Your task to perform on an android device: make emails show in primary in the gmail app Image 0: 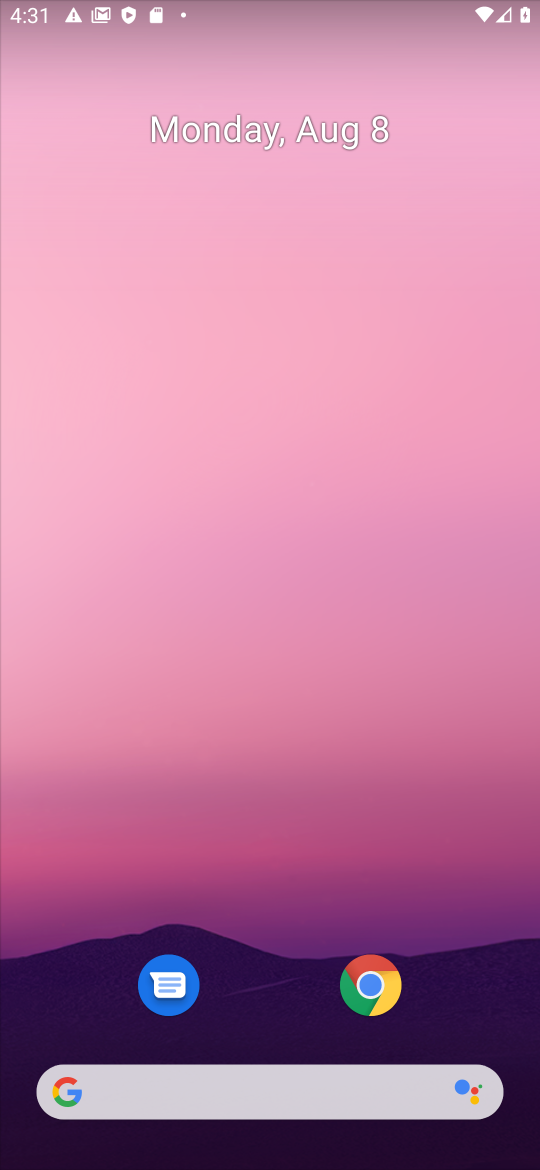
Step 0: drag from (284, 867) to (415, 39)
Your task to perform on an android device: make emails show in primary in the gmail app Image 1: 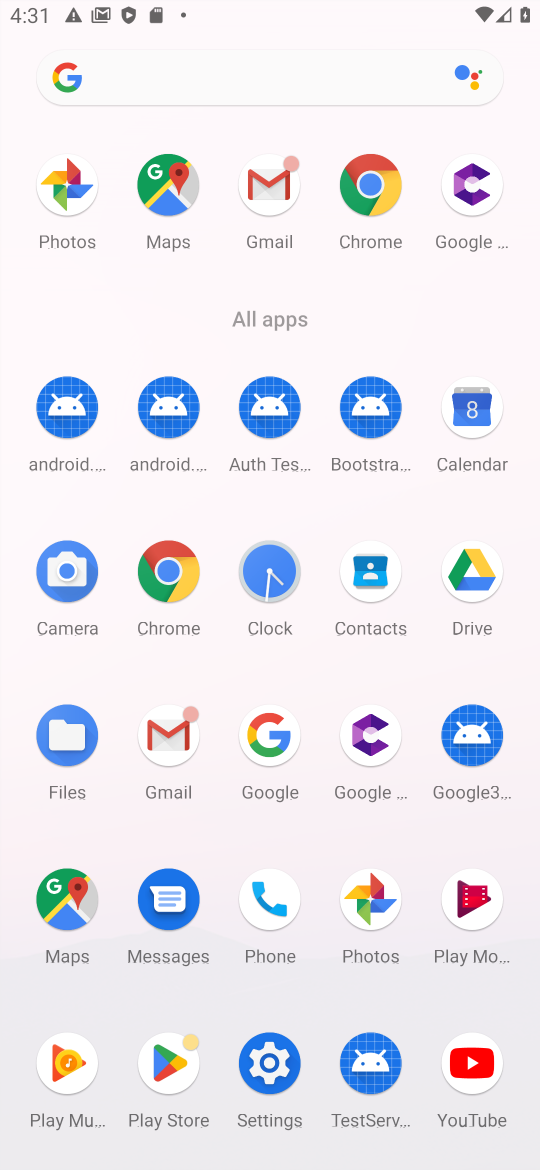
Step 1: click (170, 726)
Your task to perform on an android device: make emails show in primary in the gmail app Image 2: 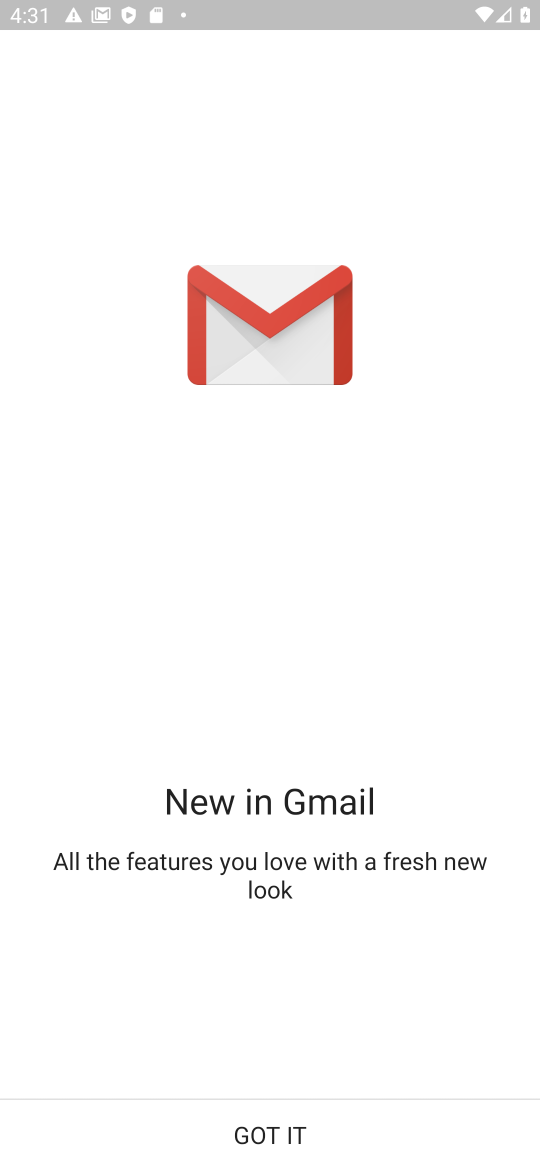
Step 2: click (286, 1126)
Your task to perform on an android device: make emails show in primary in the gmail app Image 3: 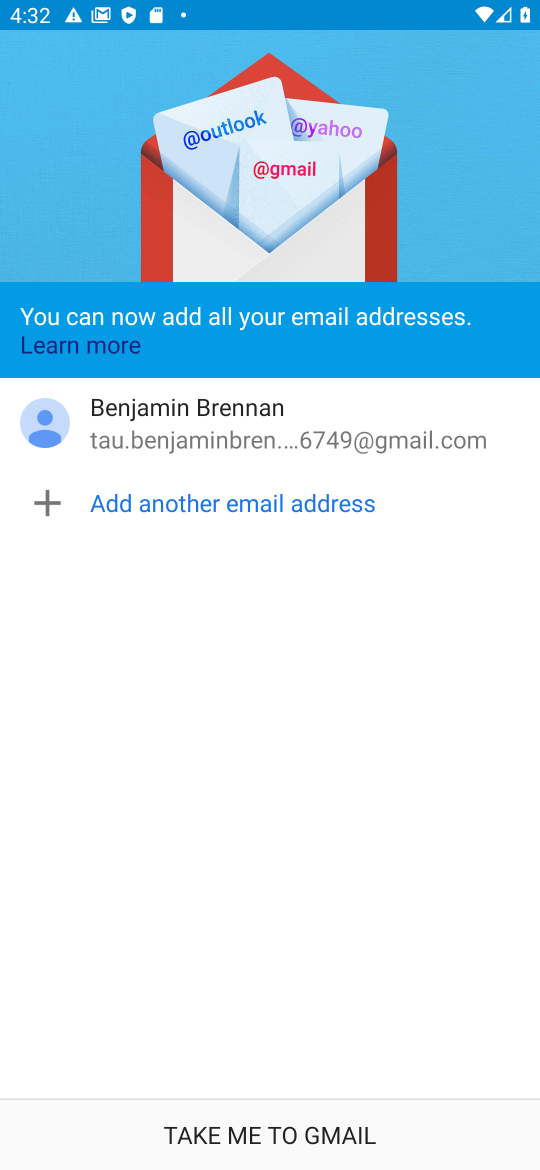
Step 3: click (293, 1137)
Your task to perform on an android device: make emails show in primary in the gmail app Image 4: 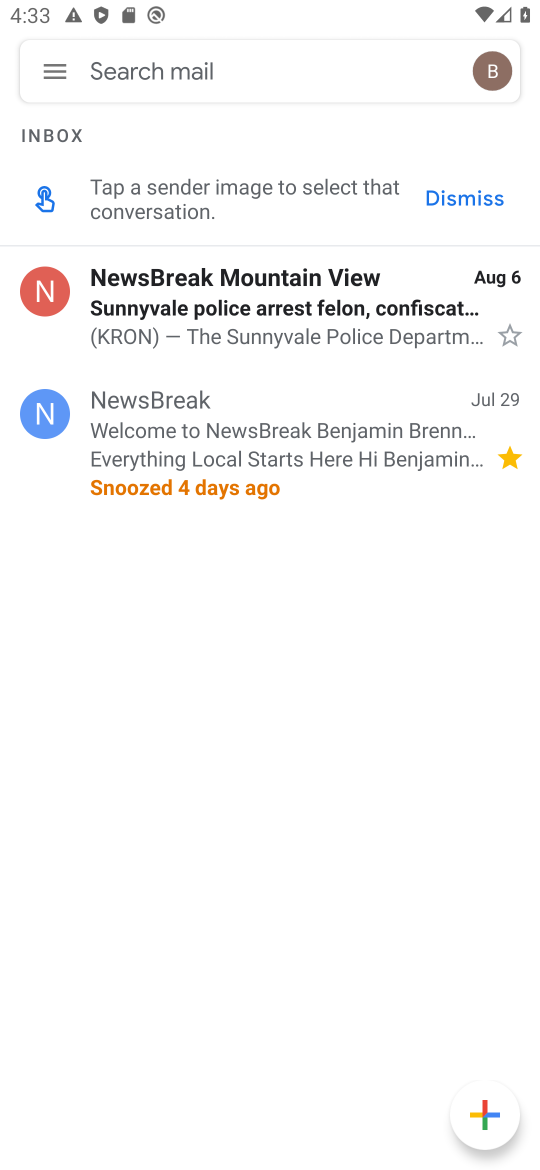
Step 4: task complete